Your task to perform on an android device: change the clock display to analog Image 0: 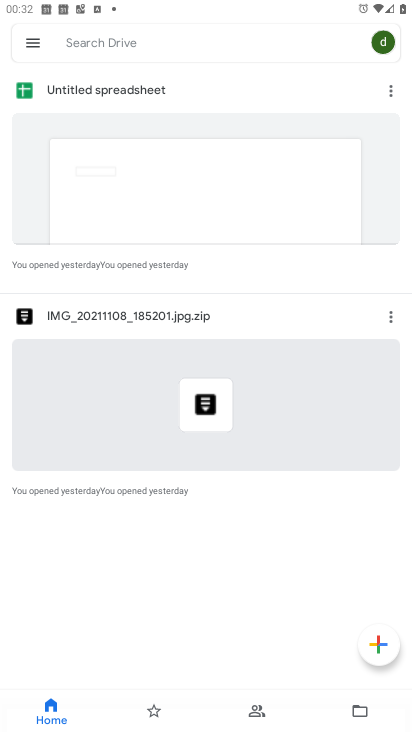
Step 0: press home button
Your task to perform on an android device: change the clock display to analog Image 1: 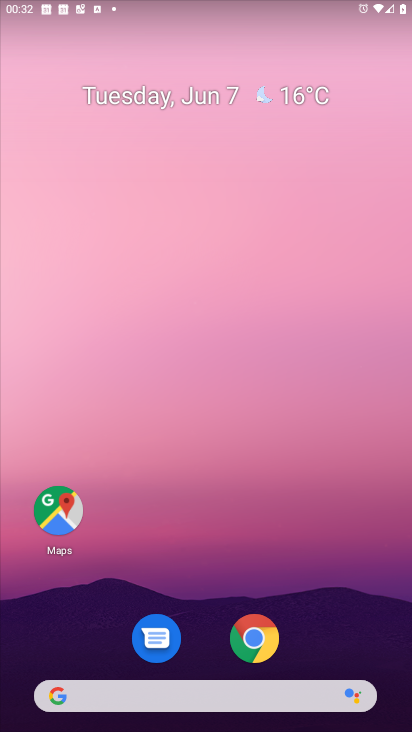
Step 1: drag from (183, 695) to (191, 185)
Your task to perform on an android device: change the clock display to analog Image 2: 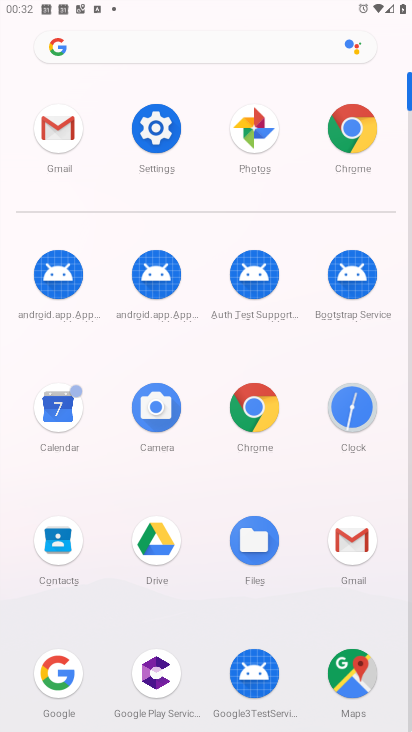
Step 2: click (342, 413)
Your task to perform on an android device: change the clock display to analog Image 3: 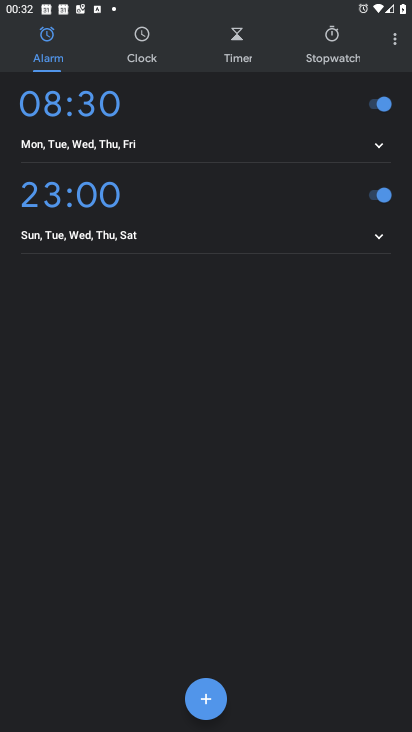
Step 3: click (387, 34)
Your task to perform on an android device: change the clock display to analog Image 4: 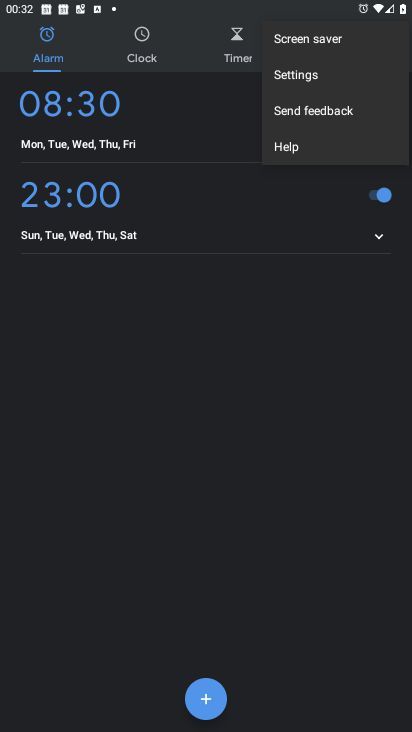
Step 4: click (307, 74)
Your task to perform on an android device: change the clock display to analog Image 5: 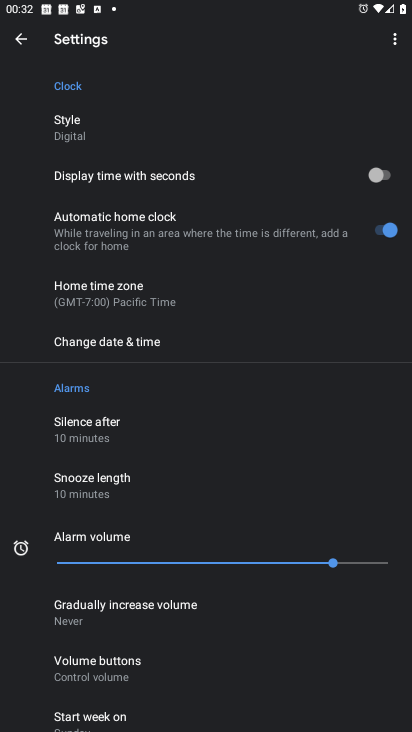
Step 5: click (134, 146)
Your task to perform on an android device: change the clock display to analog Image 6: 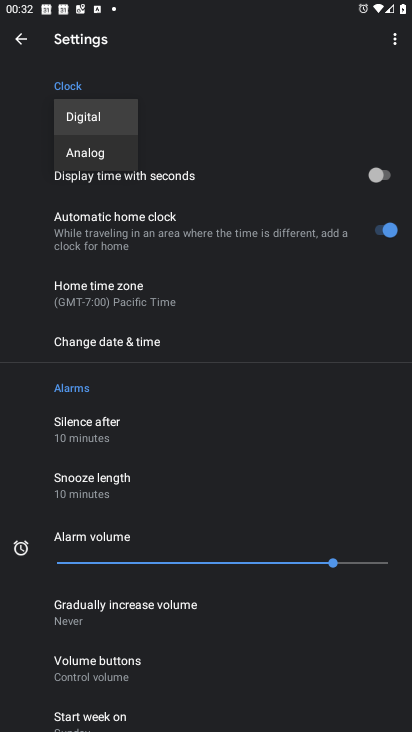
Step 6: click (72, 141)
Your task to perform on an android device: change the clock display to analog Image 7: 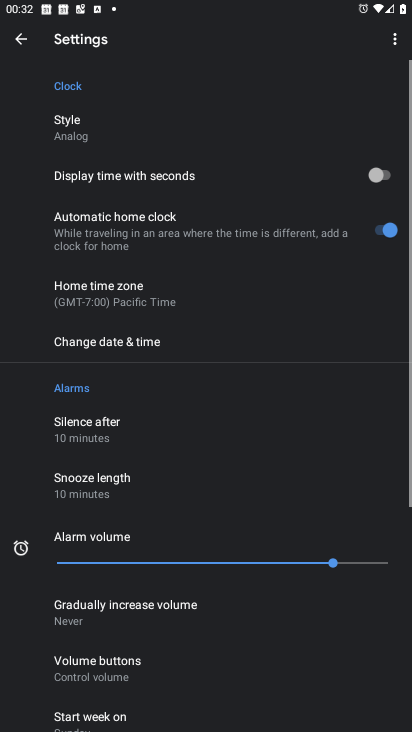
Step 7: task complete